Your task to perform on an android device: Clear the shopping cart on walmart. Add energizer triple a to the cart on walmart Image 0: 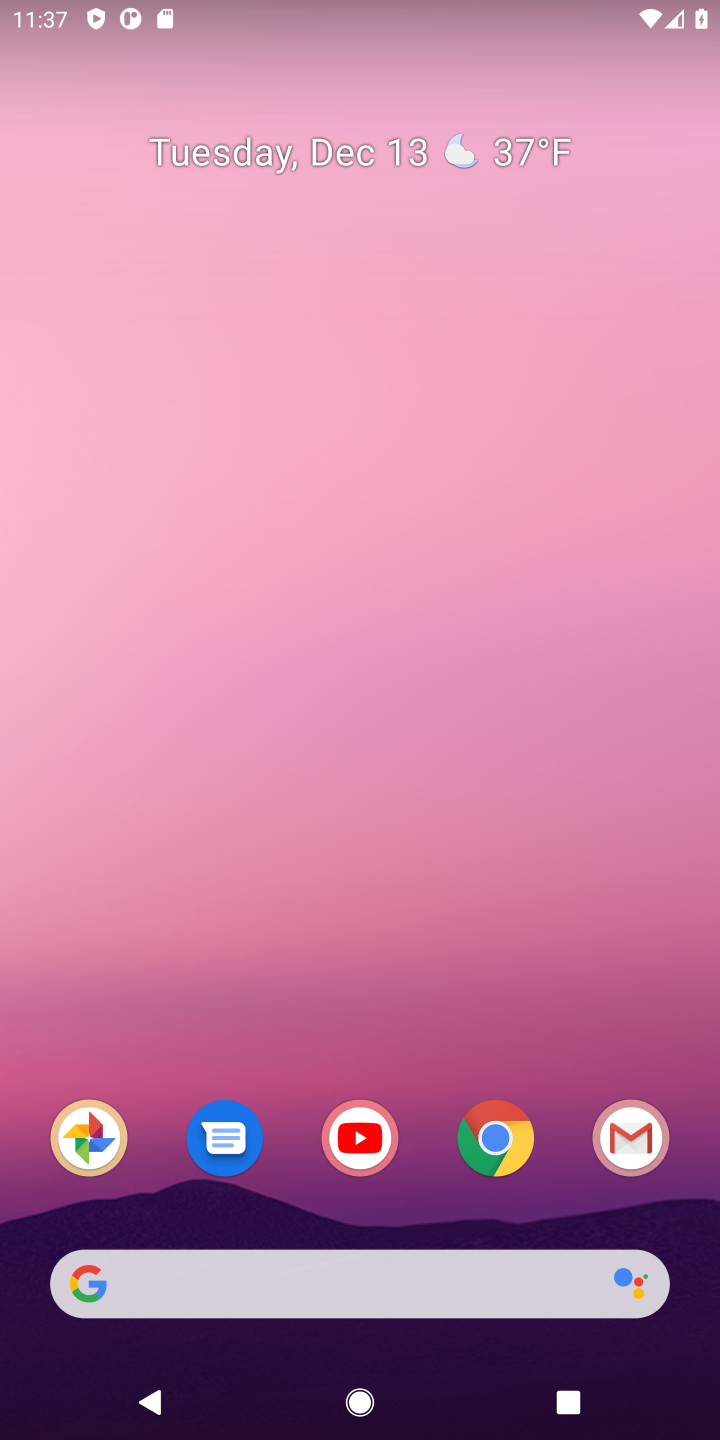
Step 0: click (488, 1144)
Your task to perform on an android device: Clear the shopping cart on walmart. Add energizer triple a to the cart on walmart Image 1: 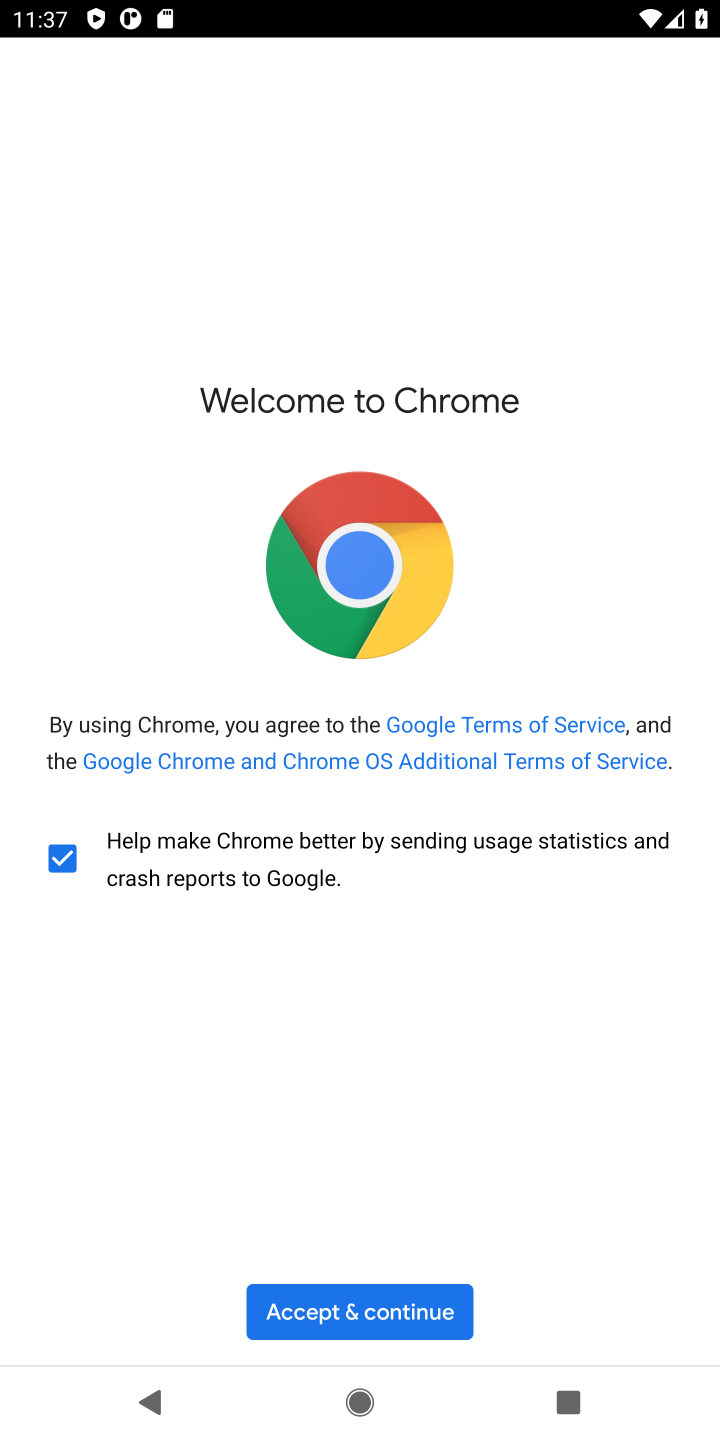
Step 1: click (348, 1316)
Your task to perform on an android device: Clear the shopping cart on walmart. Add energizer triple a to the cart on walmart Image 2: 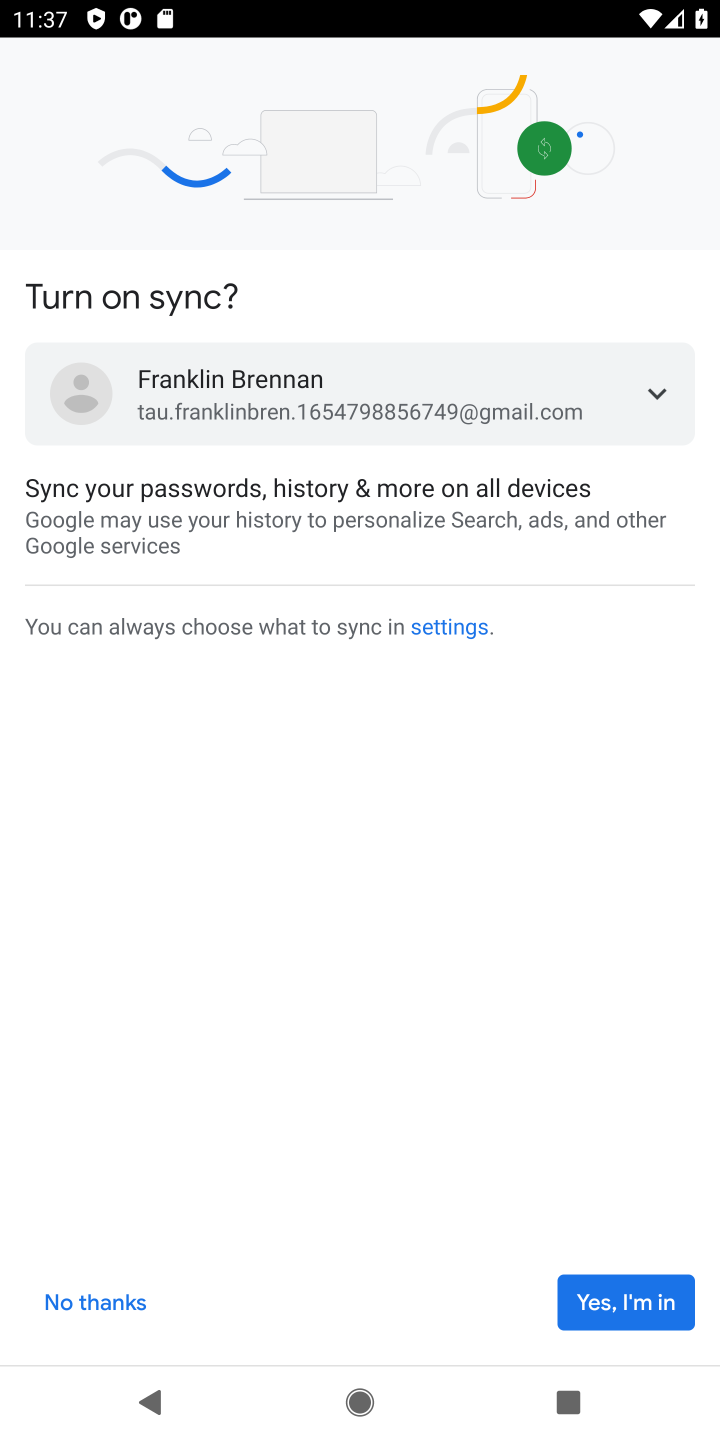
Step 2: click (612, 1295)
Your task to perform on an android device: Clear the shopping cart on walmart. Add energizer triple a to the cart on walmart Image 3: 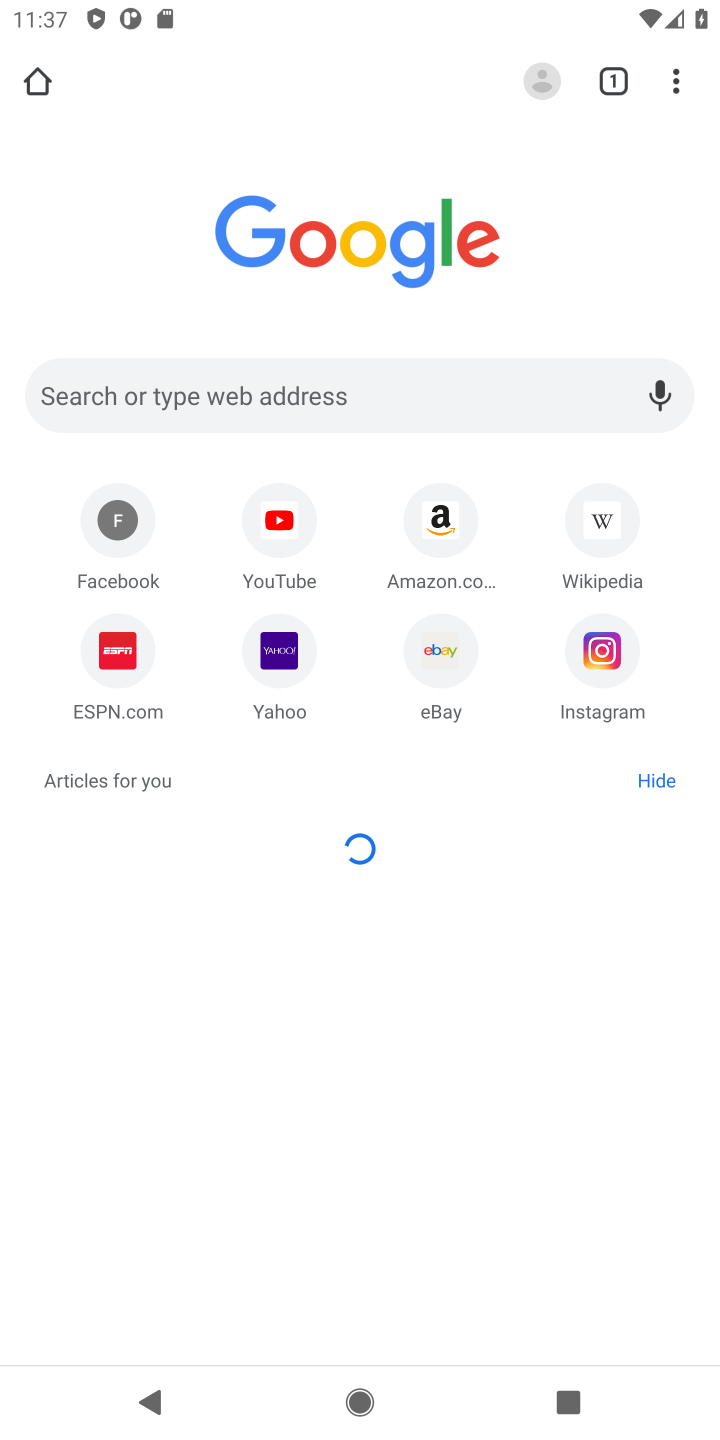
Step 3: click (383, 406)
Your task to perform on an android device: Clear the shopping cart on walmart. Add energizer triple a to the cart on walmart Image 4: 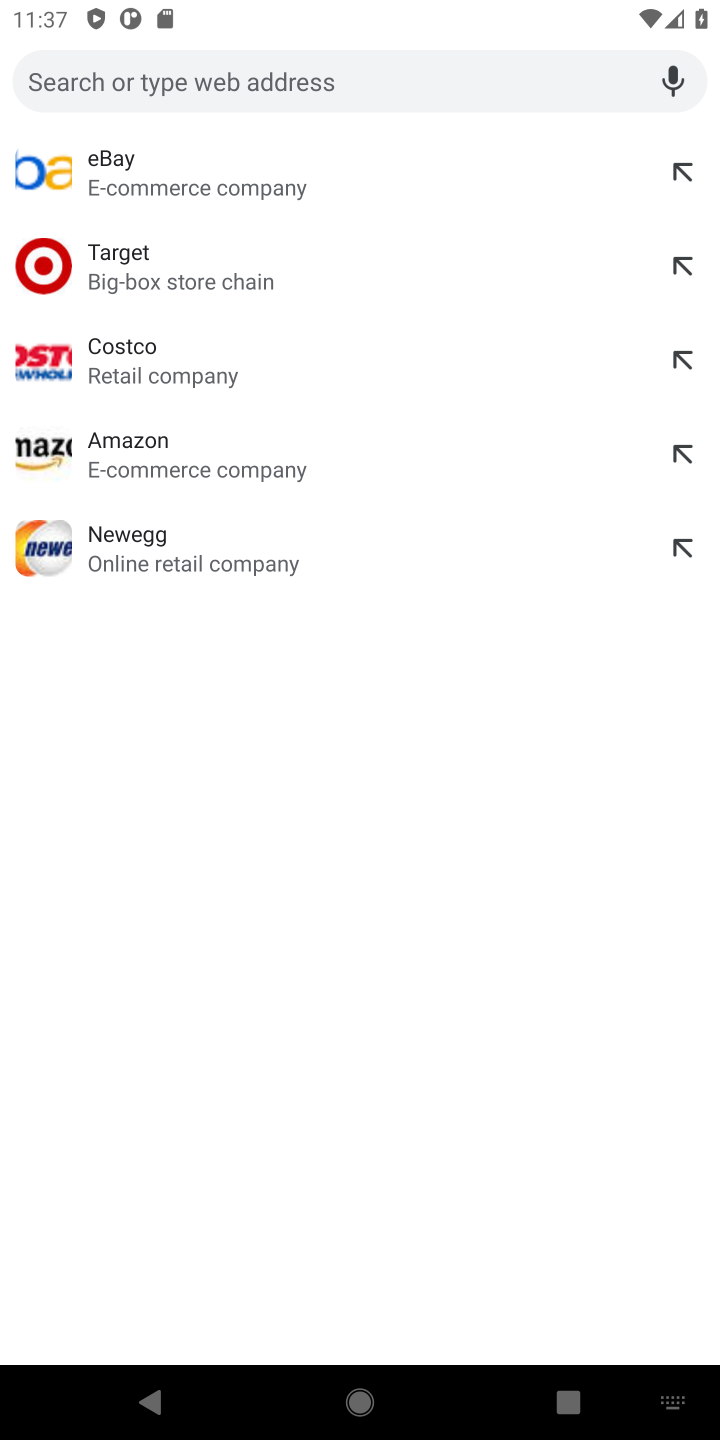
Step 4: type "walmart"
Your task to perform on an android device: Clear the shopping cart on walmart. Add energizer triple a to the cart on walmart Image 5: 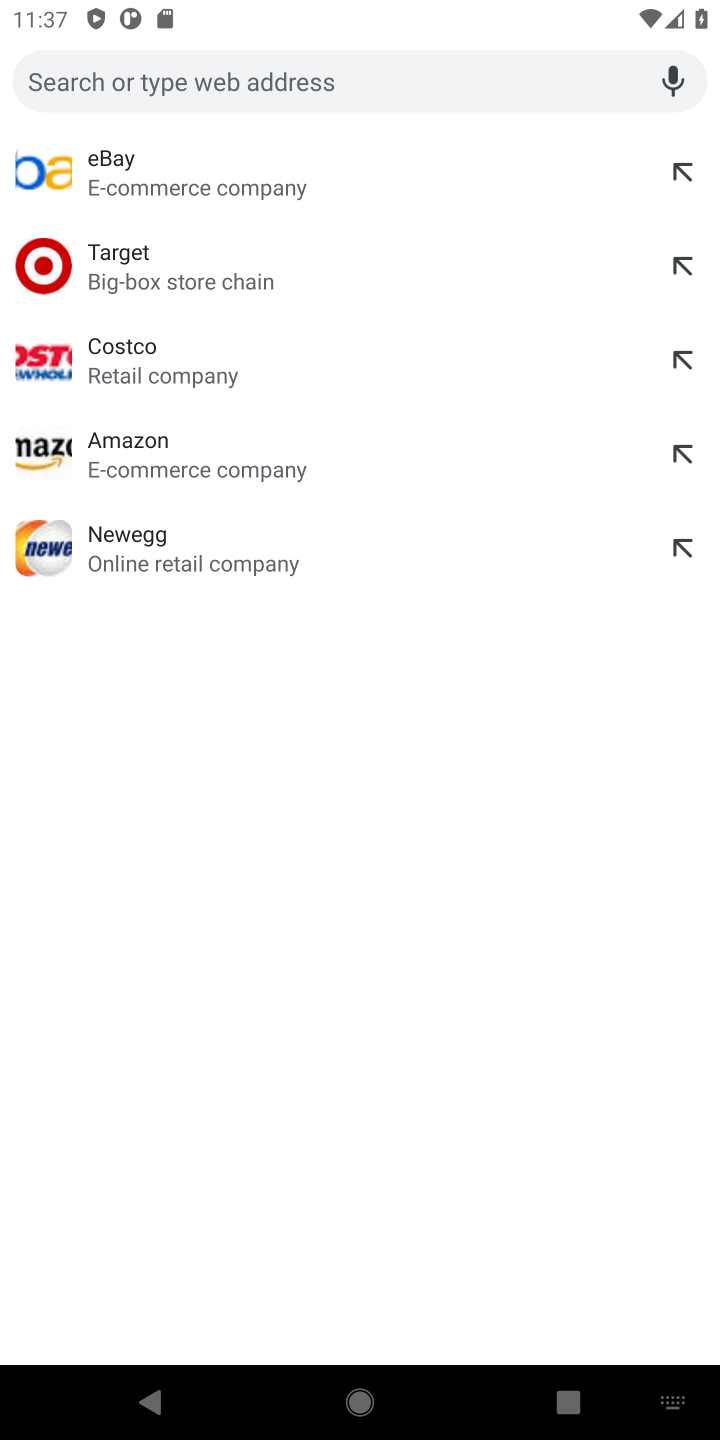
Step 5: click (217, 70)
Your task to perform on an android device: Clear the shopping cart on walmart. Add energizer triple a to the cart on walmart Image 6: 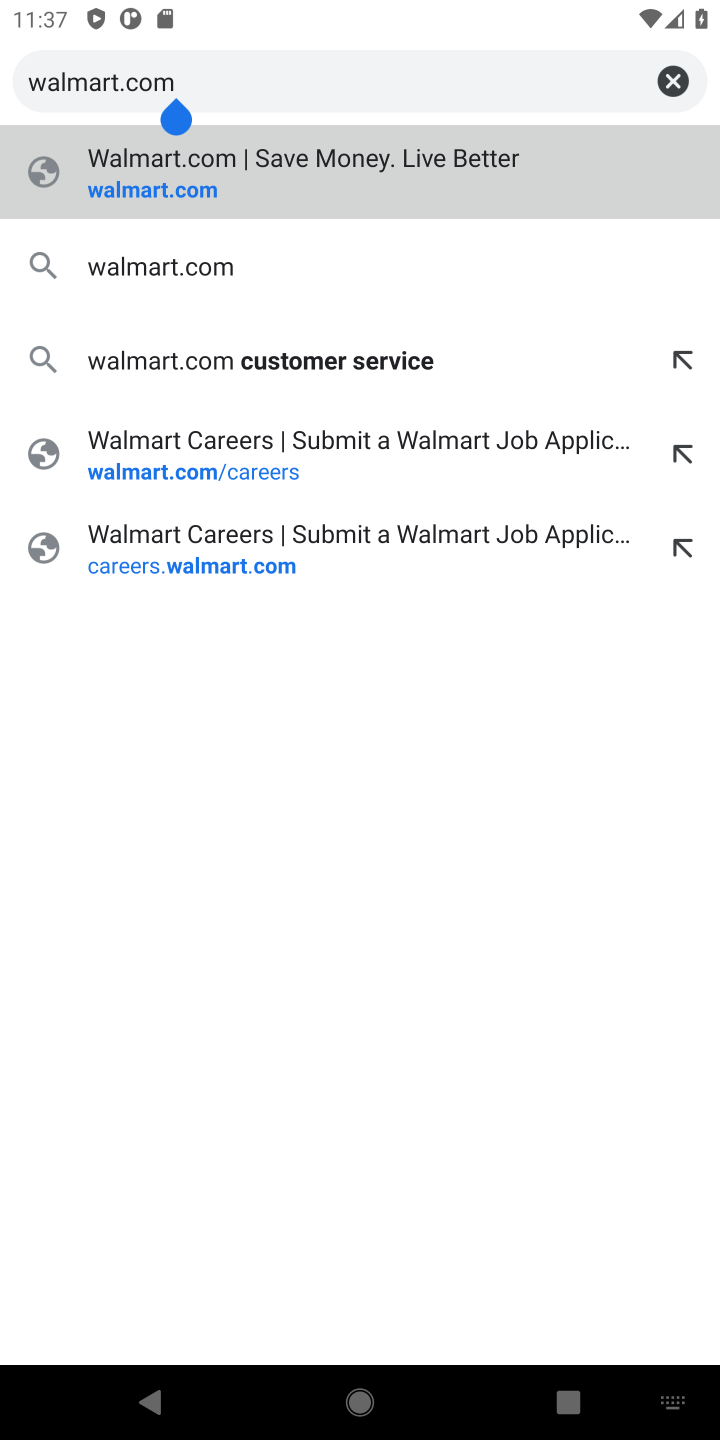
Step 6: click (215, 172)
Your task to perform on an android device: Clear the shopping cart on walmart. Add energizer triple a to the cart on walmart Image 7: 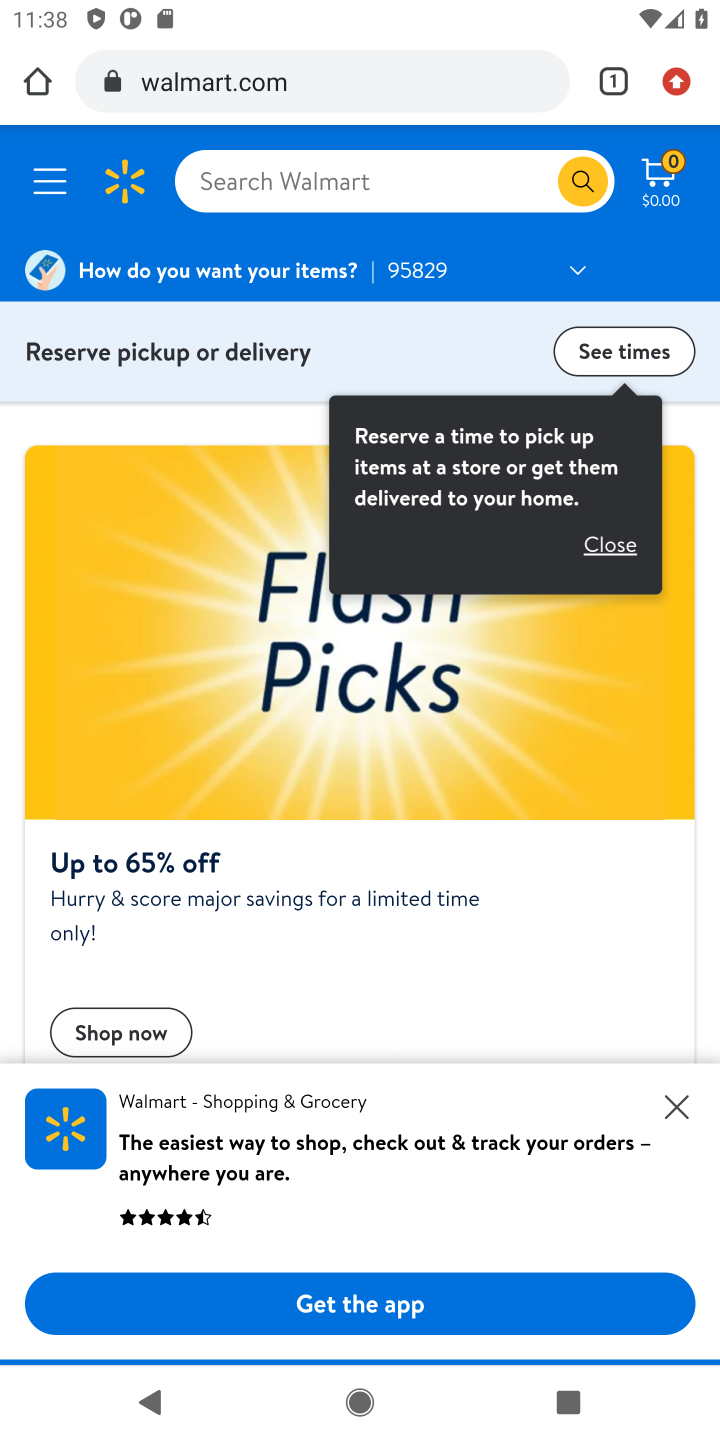
Step 7: click (238, 183)
Your task to perform on an android device: Clear the shopping cart on walmart. Add energizer triple a to the cart on walmart Image 8: 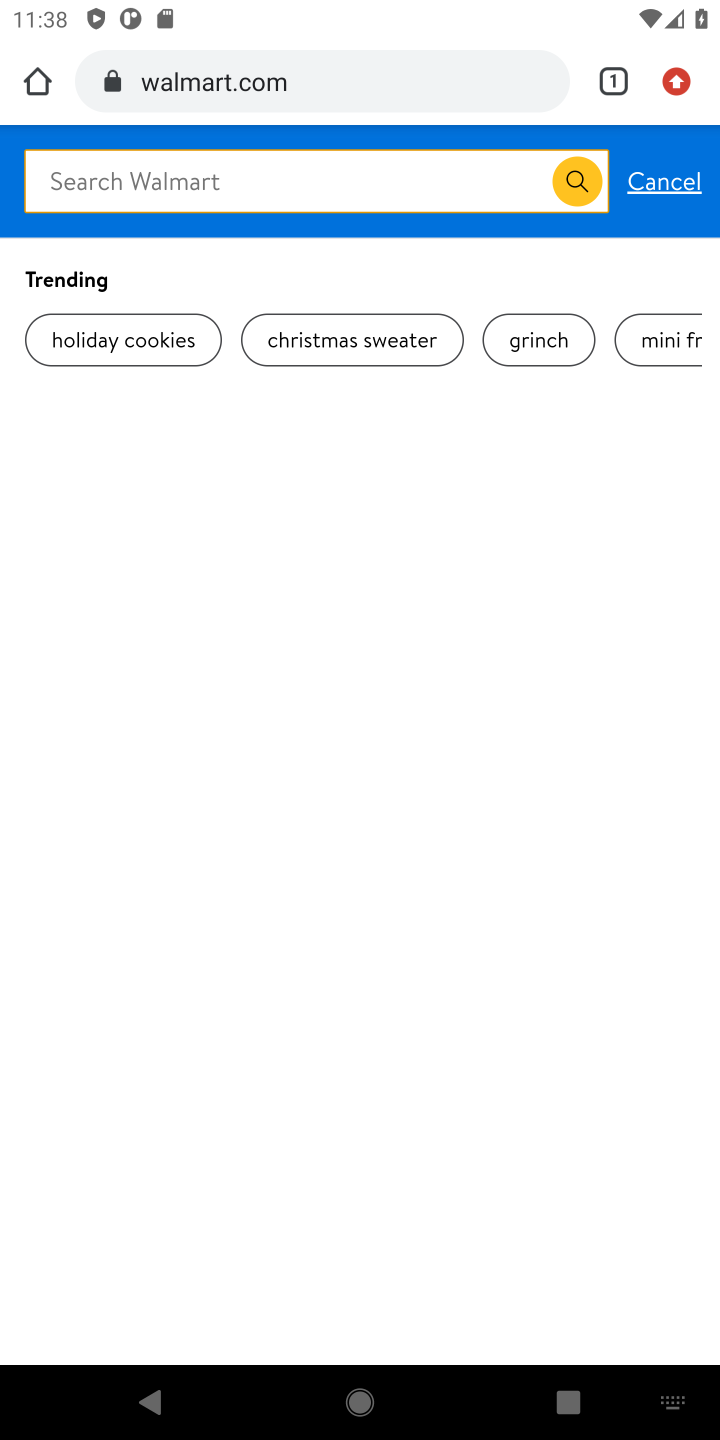
Step 8: type "energizer triple a"
Your task to perform on an android device: Clear the shopping cart on walmart. Add energizer triple a to the cart on walmart Image 9: 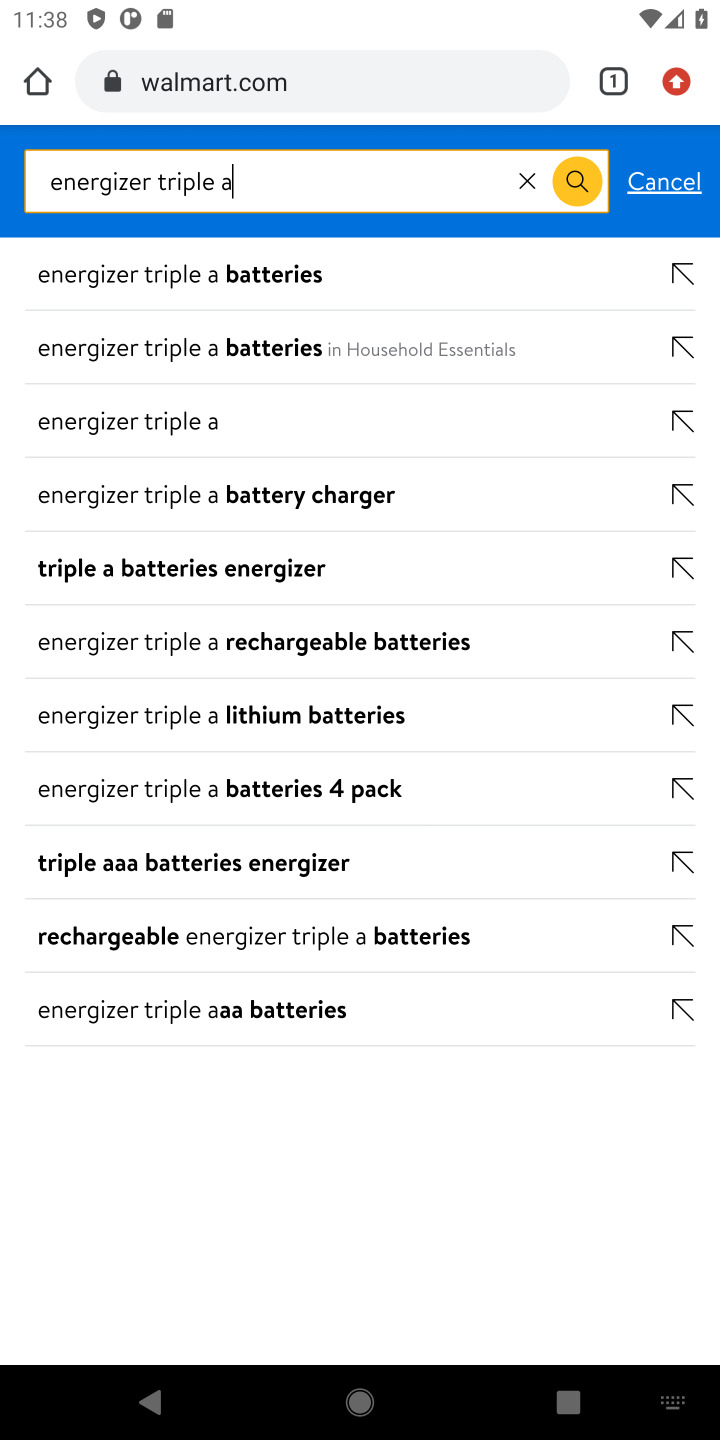
Step 9: click (206, 348)
Your task to perform on an android device: Clear the shopping cart on walmart. Add energizer triple a to the cart on walmart Image 10: 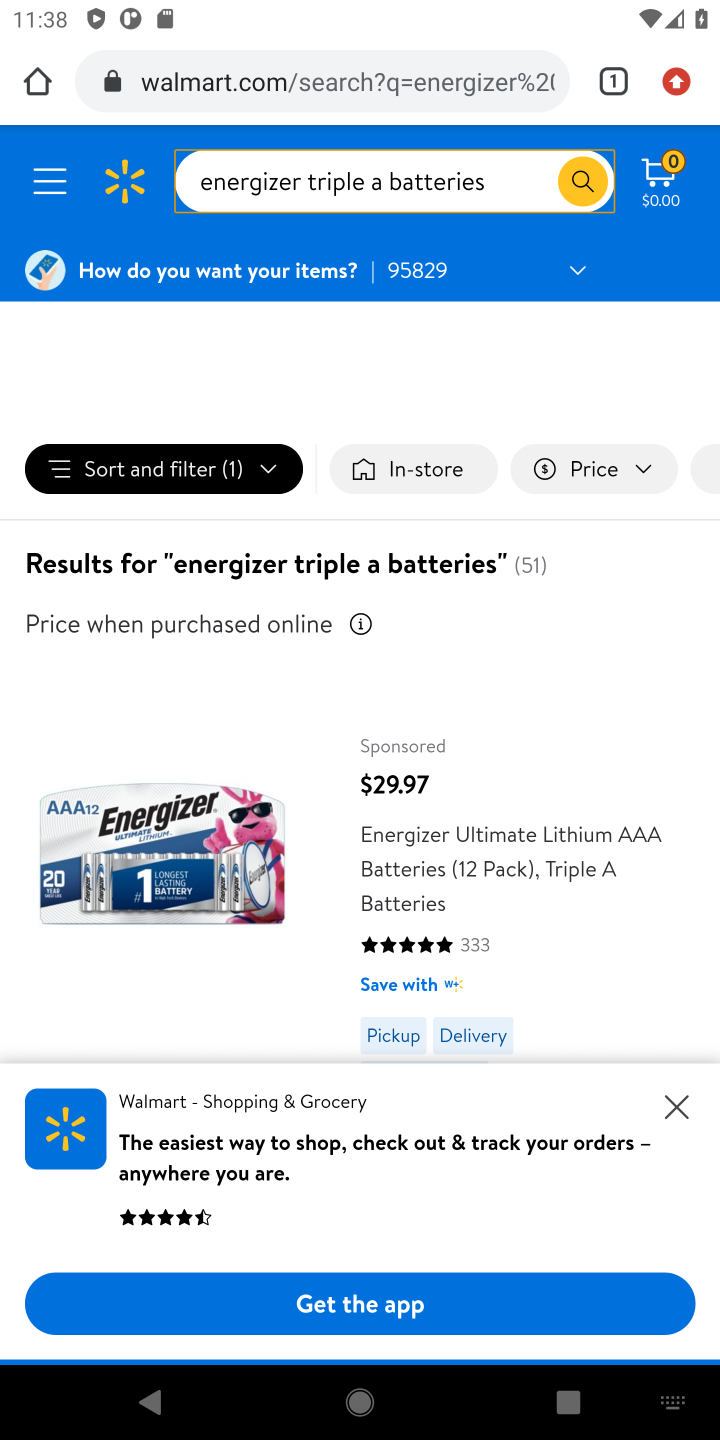
Step 10: click (675, 1101)
Your task to perform on an android device: Clear the shopping cart on walmart. Add energizer triple a to the cart on walmart Image 11: 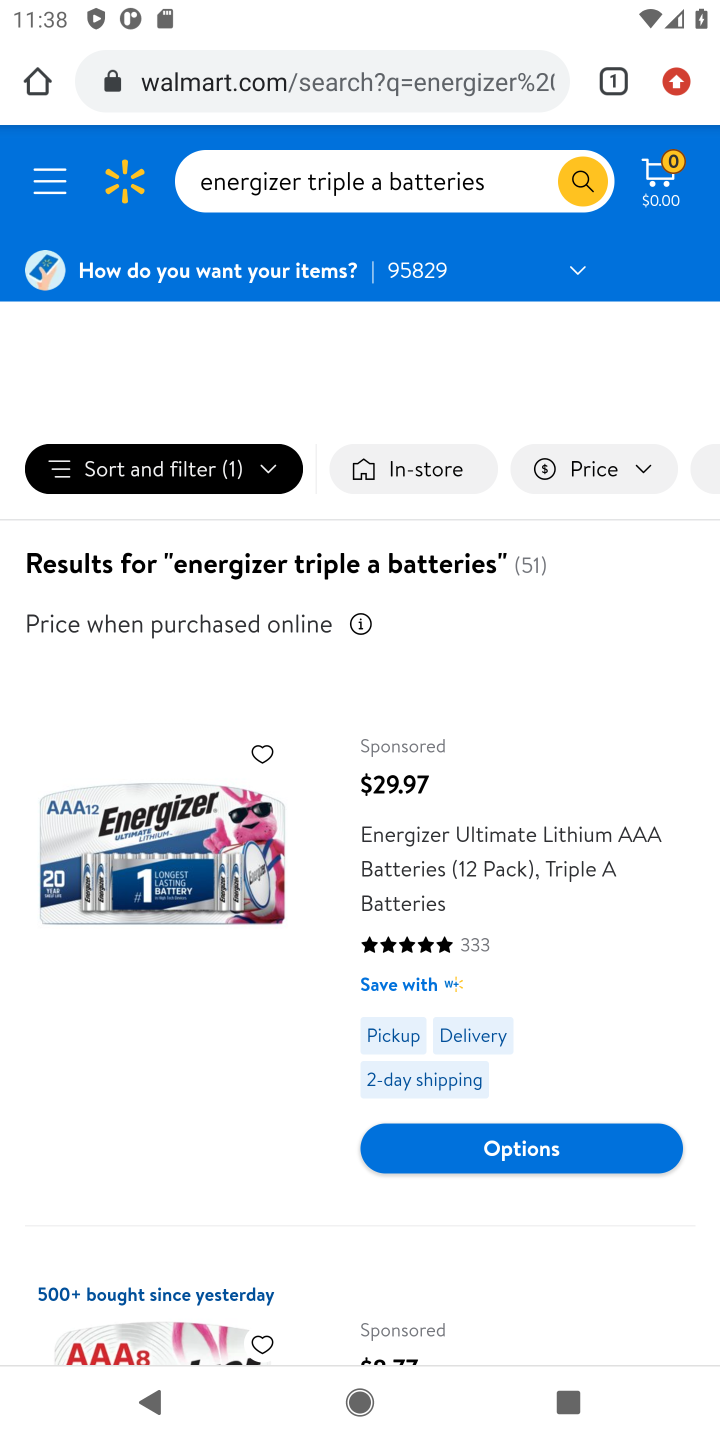
Step 11: click (507, 875)
Your task to perform on an android device: Clear the shopping cart on walmart. Add energizer triple a to the cart on walmart Image 12: 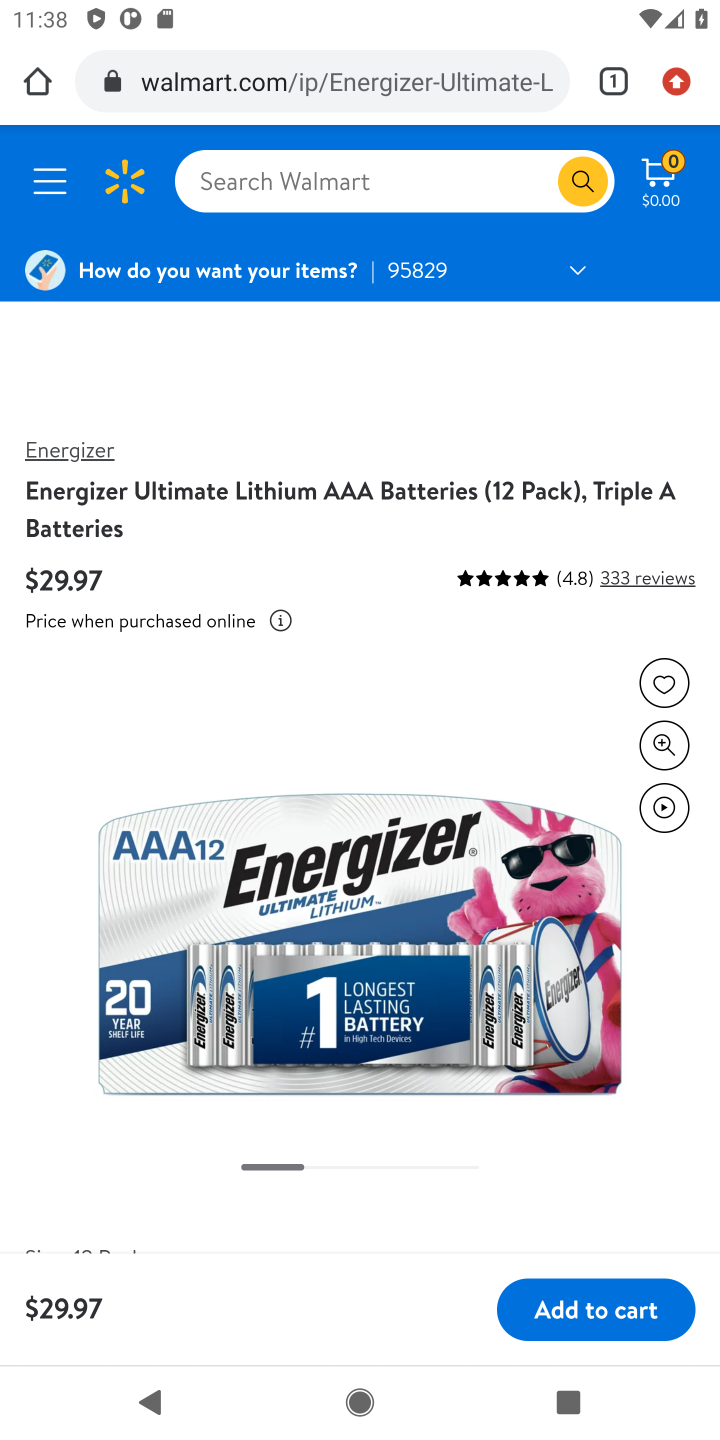
Step 12: click (631, 1308)
Your task to perform on an android device: Clear the shopping cart on walmart. Add energizer triple a to the cart on walmart Image 13: 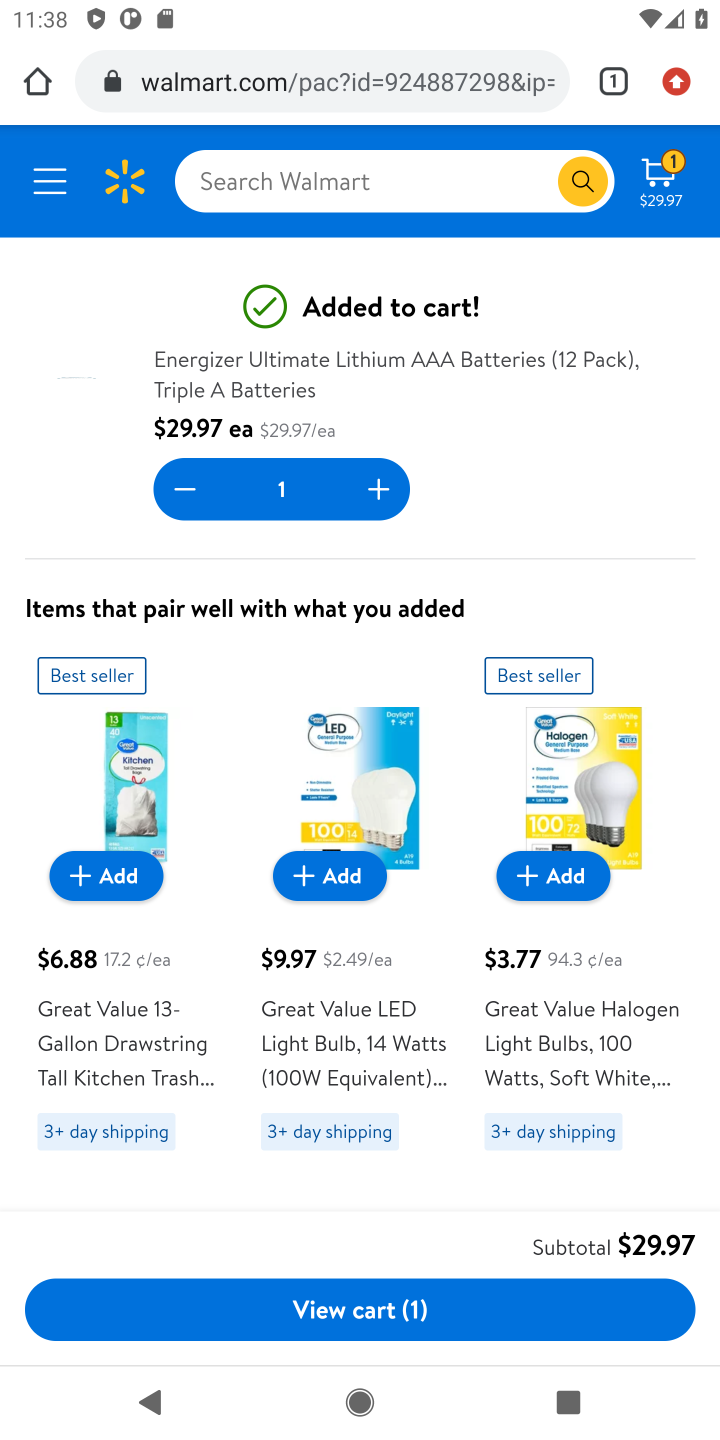
Step 13: task complete